Your task to perform on an android device: turn off data saver in the chrome app Image 0: 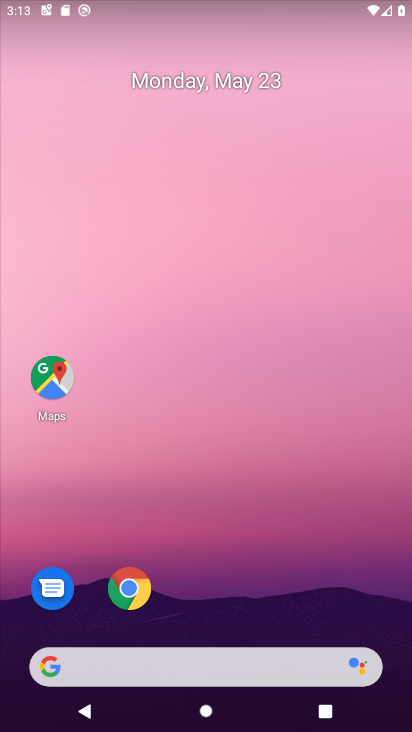
Step 0: drag from (218, 609) to (315, 79)
Your task to perform on an android device: turn off data saver in the chrome app Image 1: 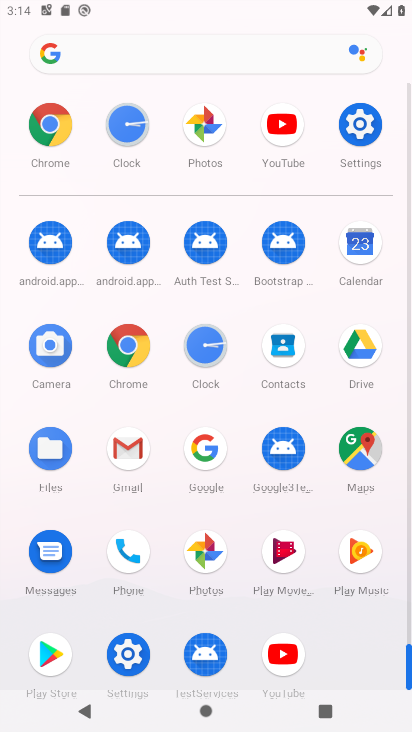
Step 1: click (124, 340)
Your task to perform on an android device: turn off data saver in the chrome app Image 2: 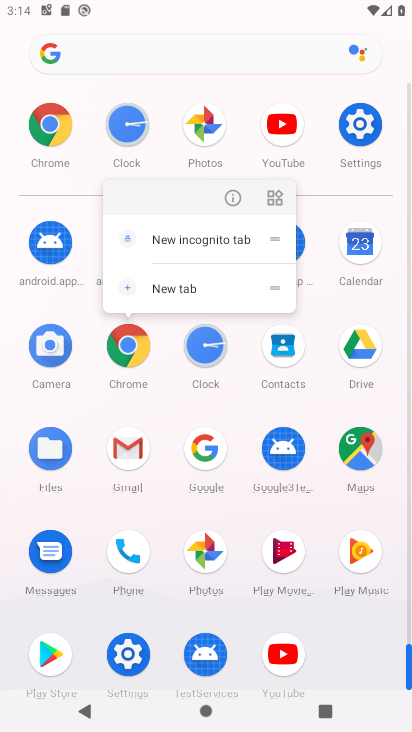
Step 2: click (229, 189)
Your task to perform on an android device: turn off data saver in the chrome app Image 3: 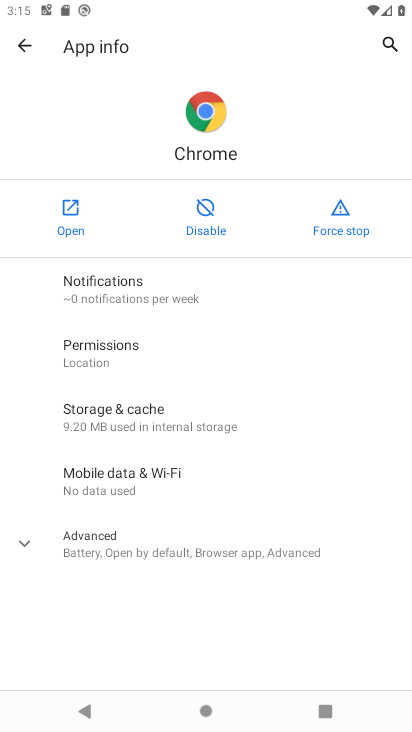
Step 3: click (73, 239)
Your task to perform on an android device: turn off data saver in the chrome app Image 4: 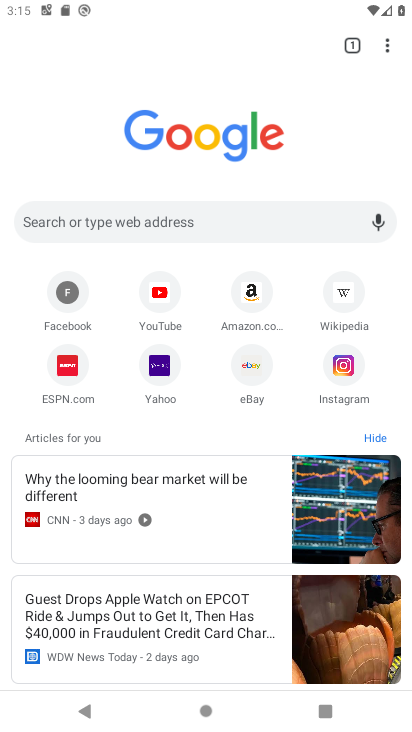
Step 4: click (386, 53)
Your task to perform on an android device: turn off data saver in the chrome app Image 5: 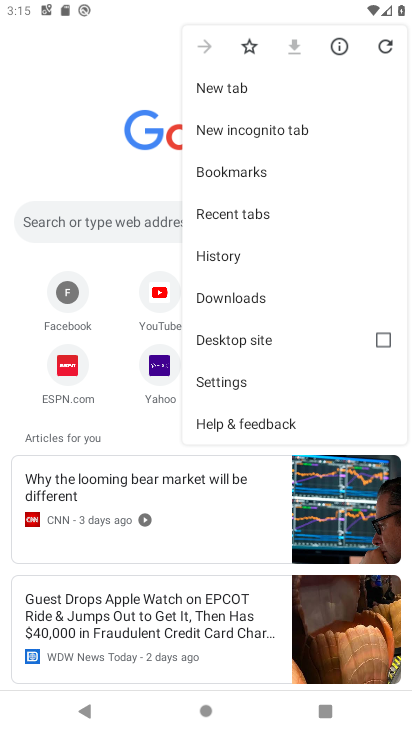
Step 5: click (219, 386)
Your task to perform on an android device: turn off data saver in the chrome app Image 6: 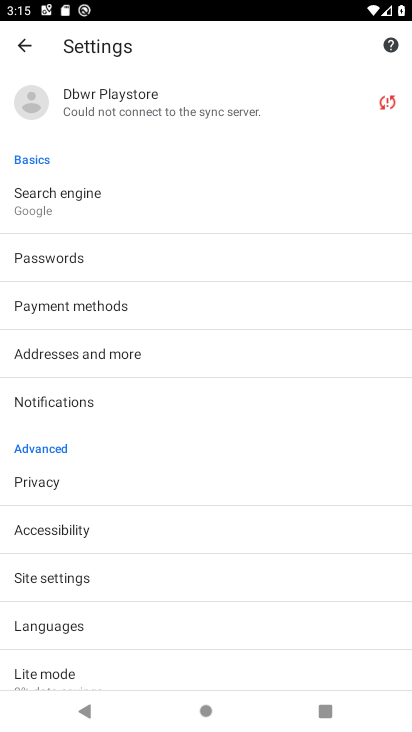
Step 6: drag from (144, 568) to (319, 32)
Your task to perform on an android device: turn off data saver in the chrome app Image 7: 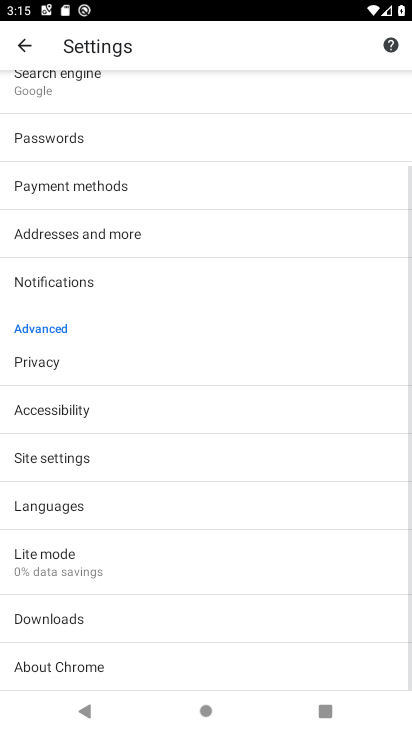
Step 7: click (71, 548)
Your task to perform on an android device: turn off data saver in the chrome app Image 8: 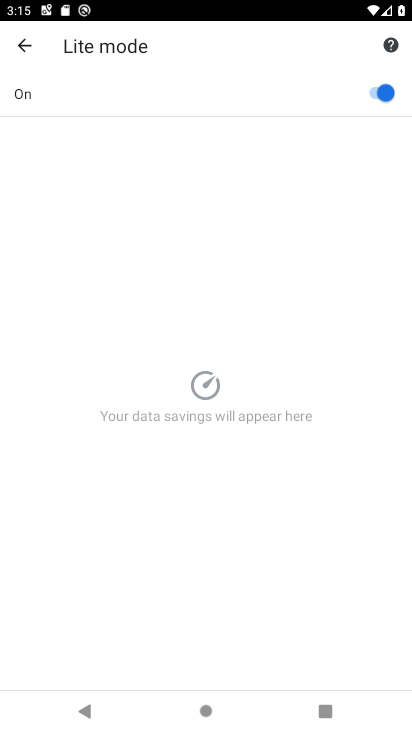
Step 8: drag from (156, 487) to (306, 245)
Your task to perform on an android device: turn off data saver in the chrome app Image 9: 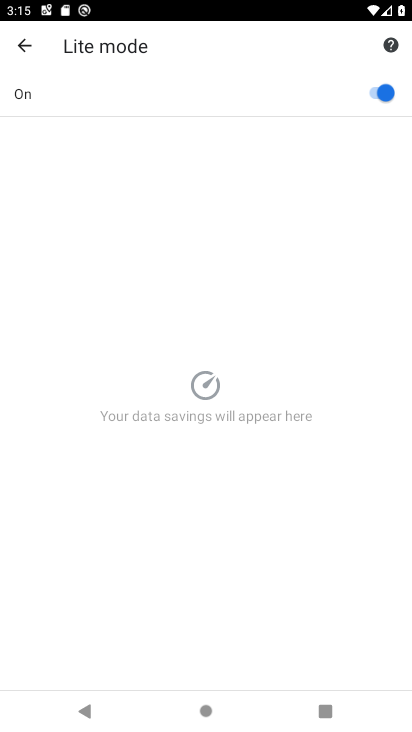
Step 9: click (368, 91)
Your task to perform on an android device: turn off data saver in the chrome app Image 10: 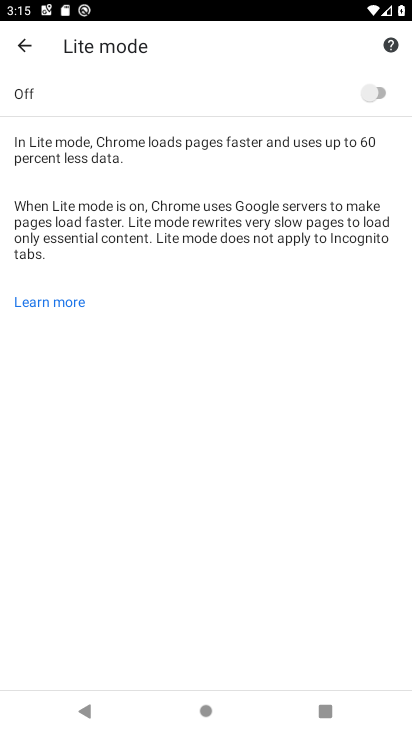
Step 10: task complete